Your task to perform on an android device: Open Google Maps and go to "Timeline" Image 0: 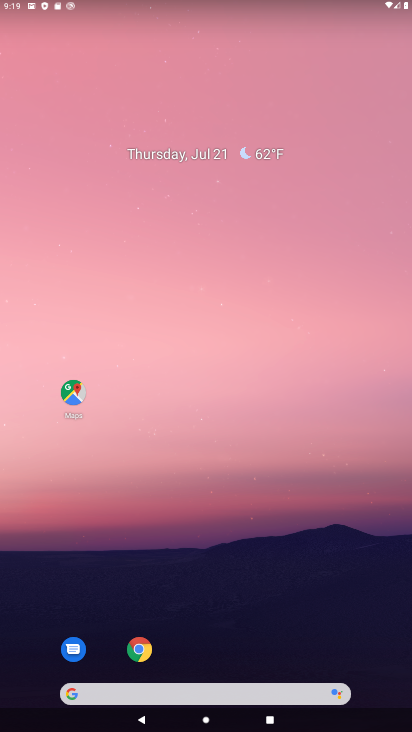
Step 0: press home button
Your task to perform on an android device: Open Google Maps and go to "Timeline" Image 1: 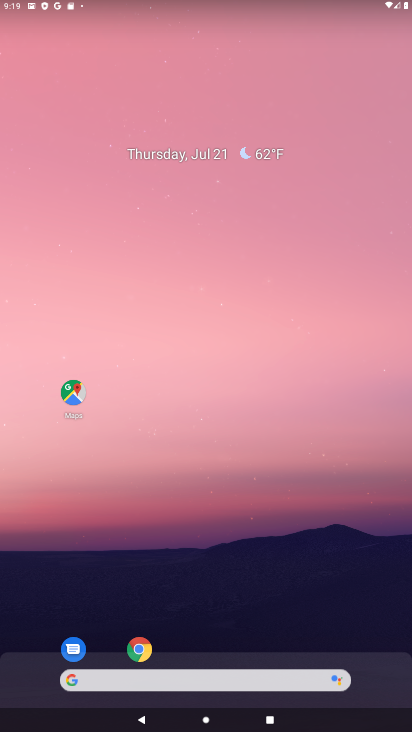
Step 1: click (71, 392)
Your task to perform on an android device: Open Google Maps and go to "Timeline" Image 2: 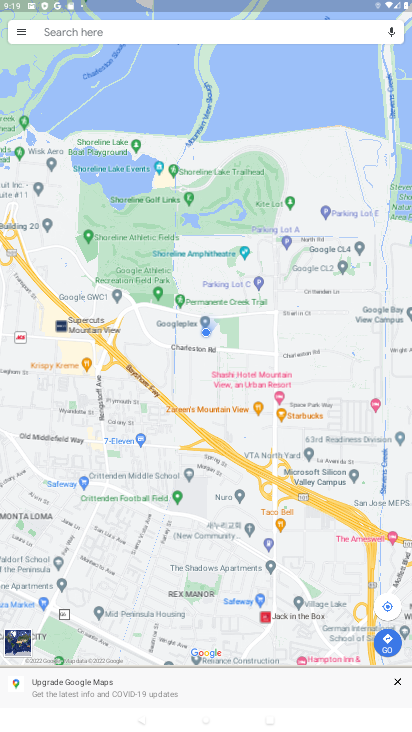
Step 2: click (23, 28)
Your task to perform on an android device: Open Google Maps and go to "Timeline" Image 3: 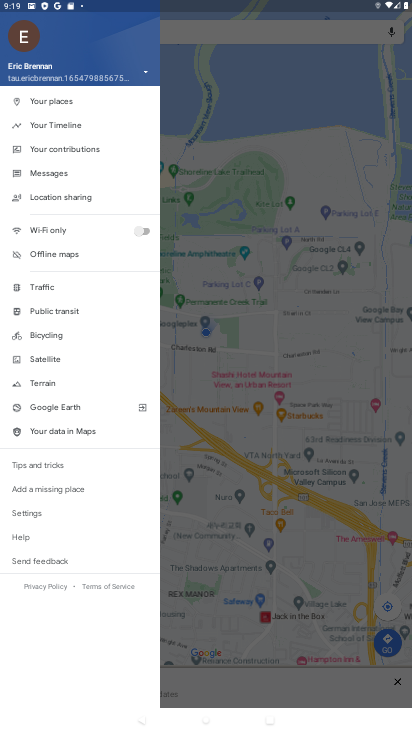
Step 3: click (66, 123)
Your task to perform on an android device: Open Google Maps and go to "Timeline" Image 4: 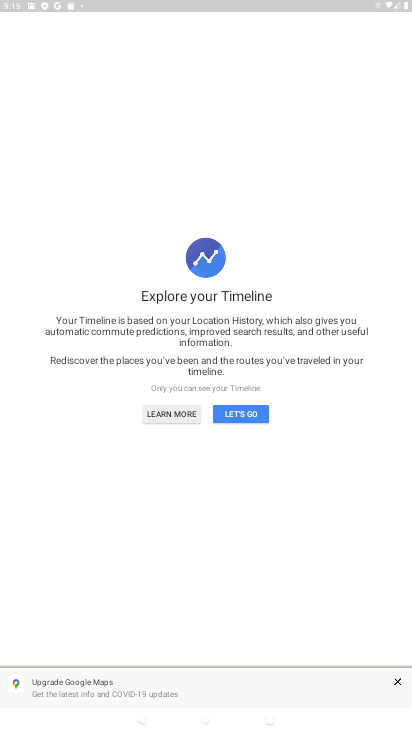
Step 4: click (231, 412)
Your task to perform on an android device: Open Google Maps and go to "Timeline" Image 5: 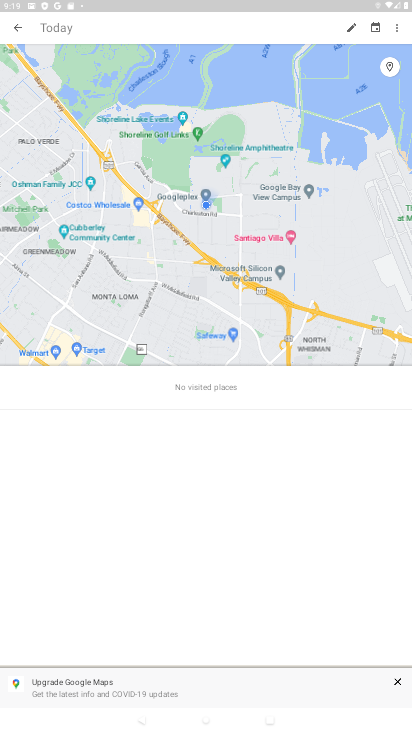
Step 5: task complete